Your task to perform on an android device: turn off location history Image 0: 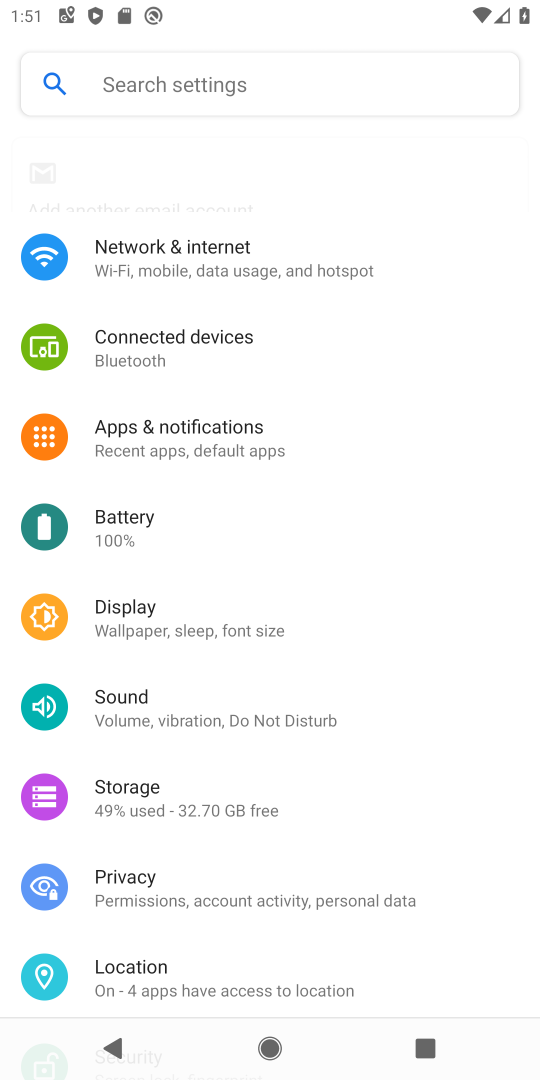
Step 0: press home button
Your task to perform on an android device: turn off location history Image 1: 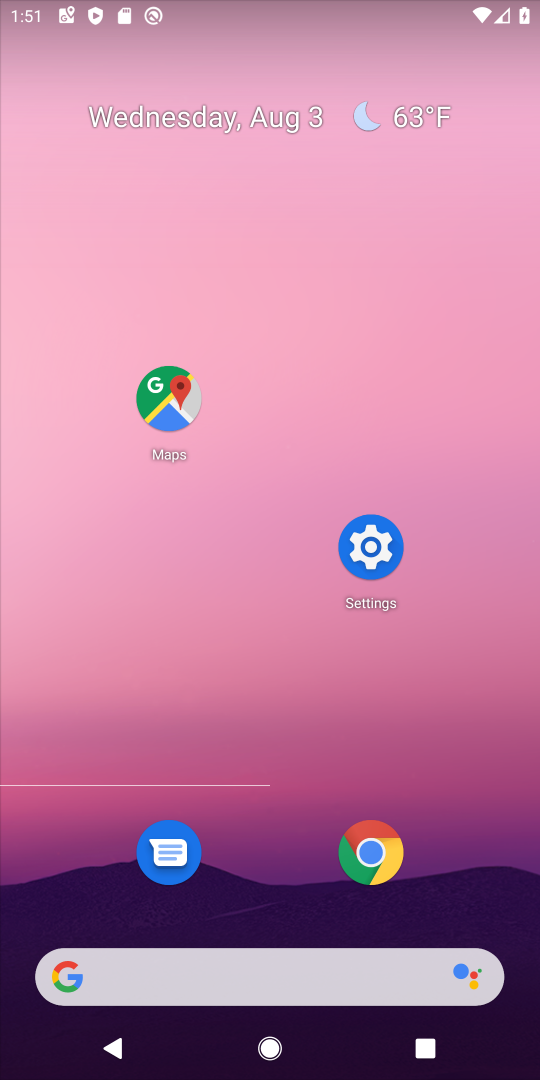
Step 1: click (165, 388)
Your task to perform on an android device: turn off location history Image 2: 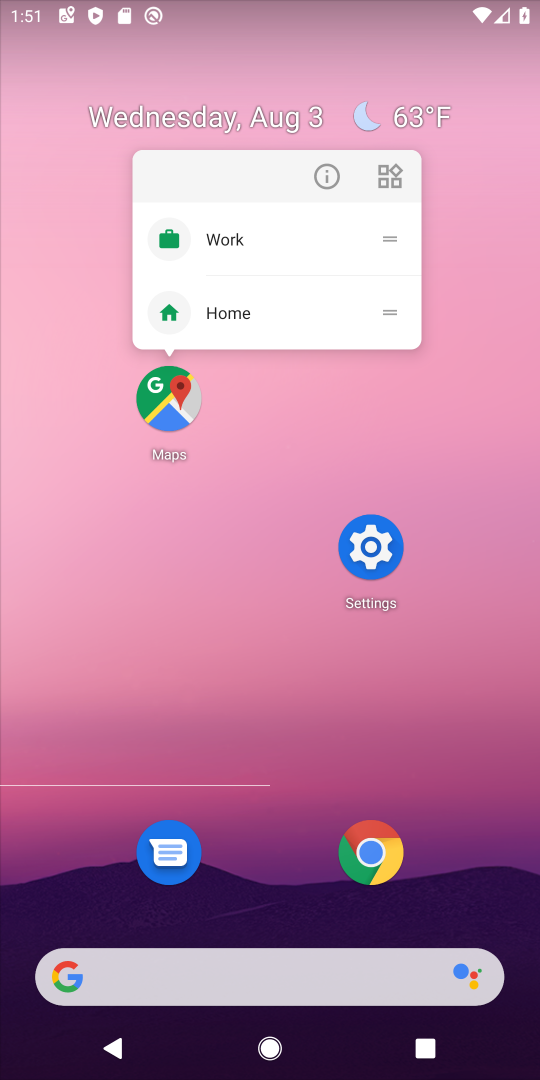
Step 2: click (165, 388)
Your task to perform on an android device: turn off location history Image 3: 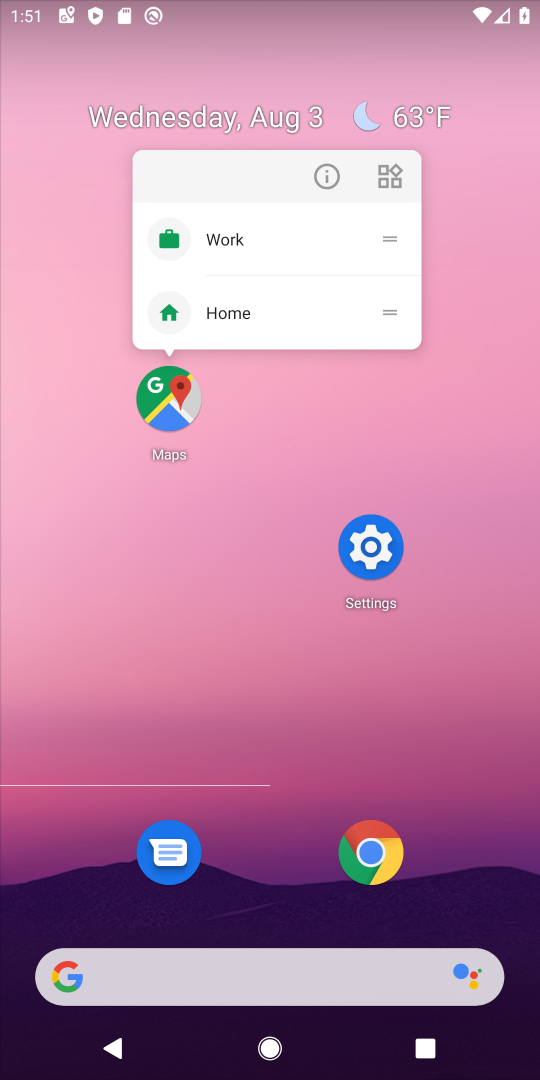
Step 3: click (165, 388)
Your task to perform on an android device: turn off location history Image 4: 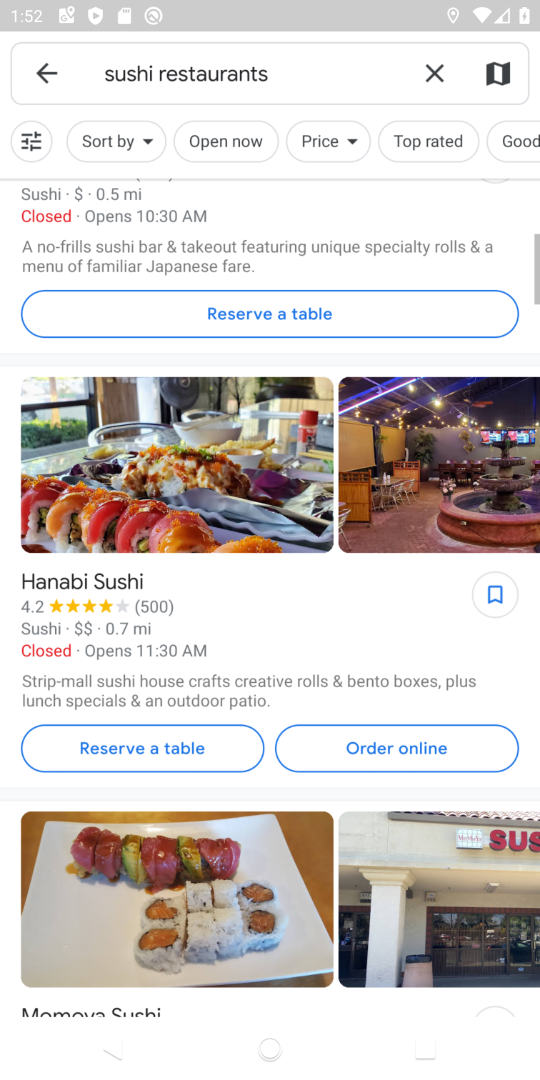
Step 4: click (165, 388)
Your task to perform on an android device: turn off location history Image 5: 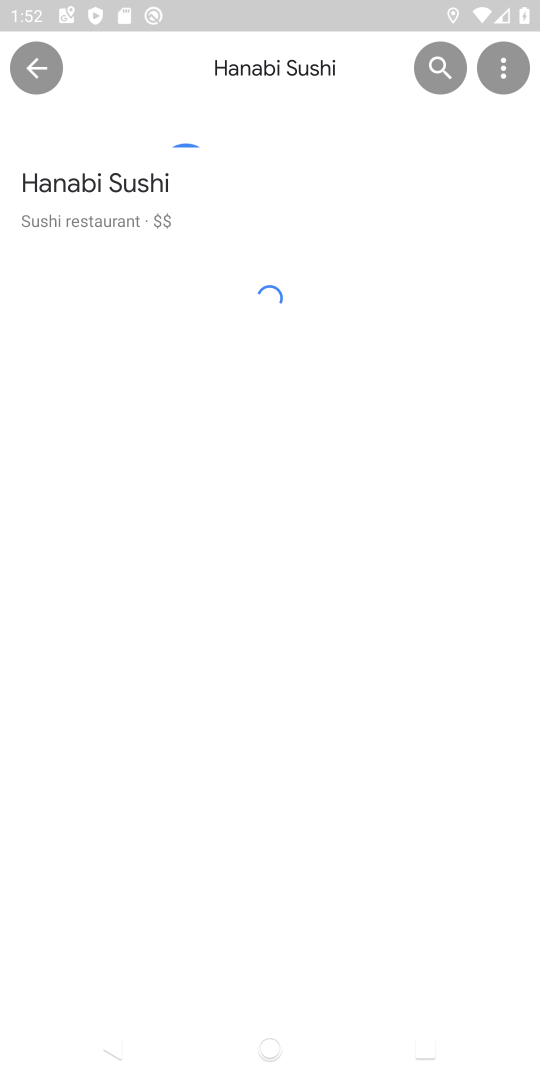
Step 5: click (36, 70)
Your task to perform on an android device: turn off location history Image 6: 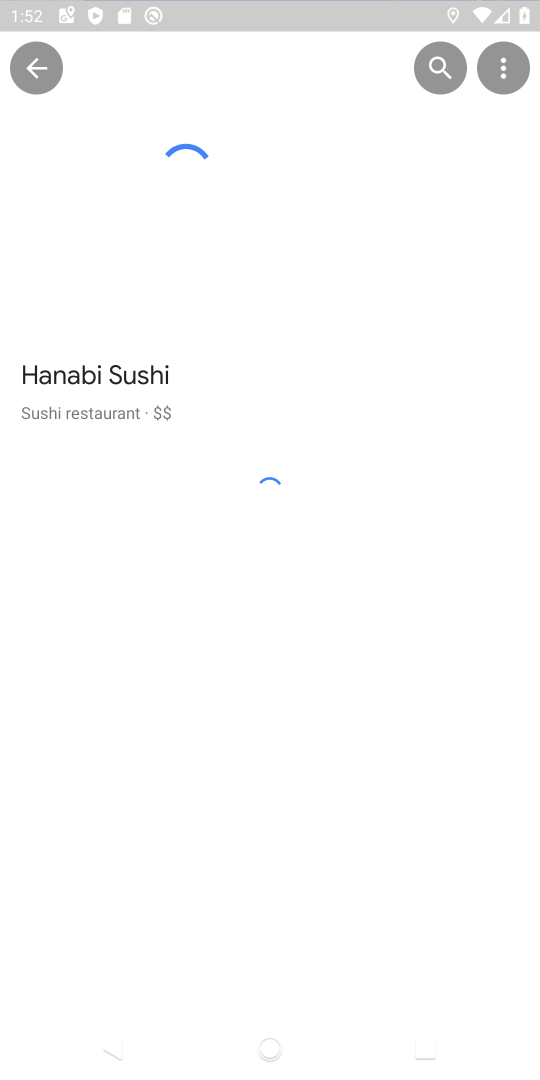
Step 6: click (33, 72)
Your task to perform on an android device: turn off location history Image 7: 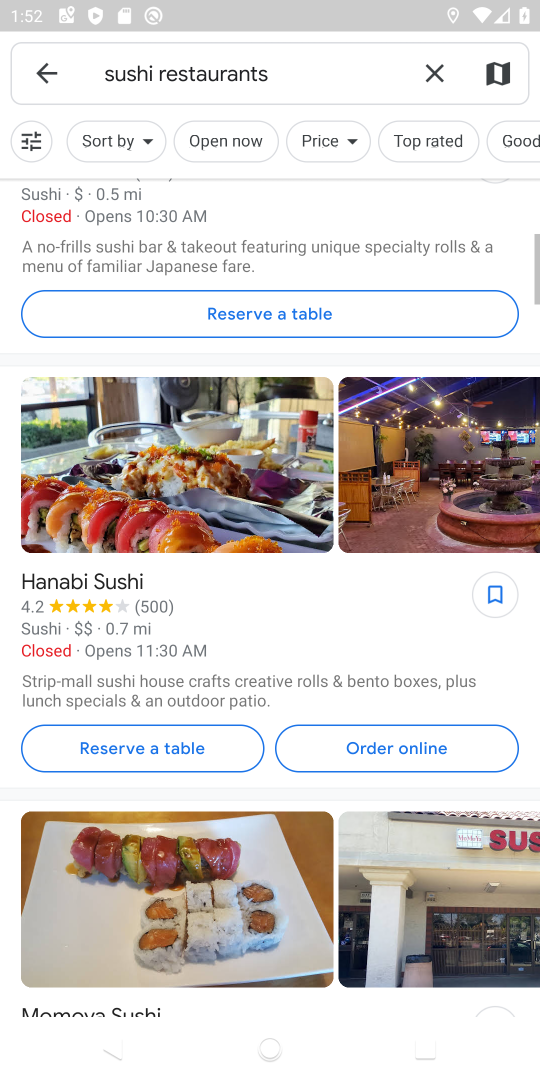
Step 7: click (48, 66)
Your task to perform on an android device: turn off location history Image 8: 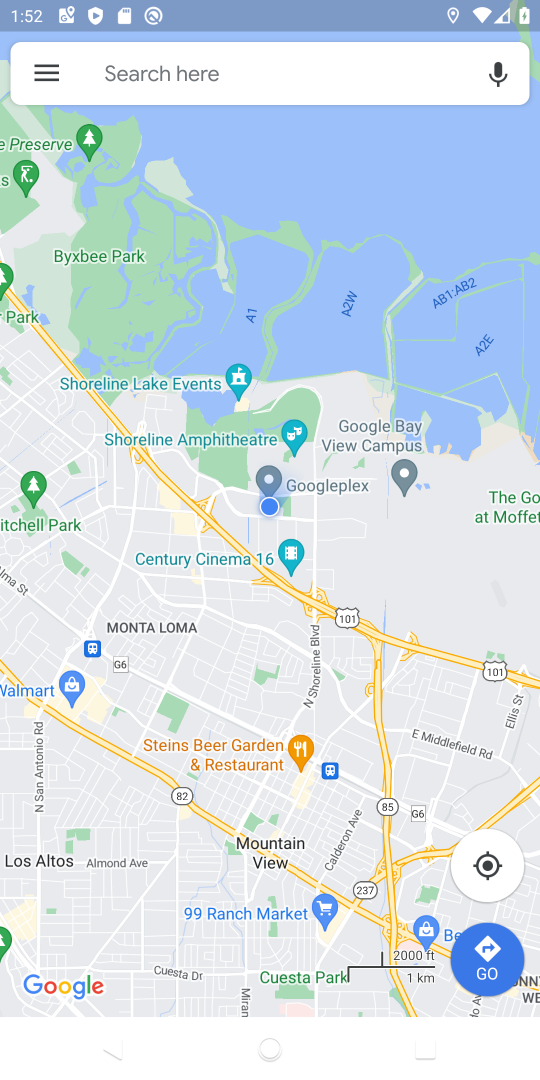
Step 8: click (37, 66)
Your task to perform on an android device: turn off location history Image 9: 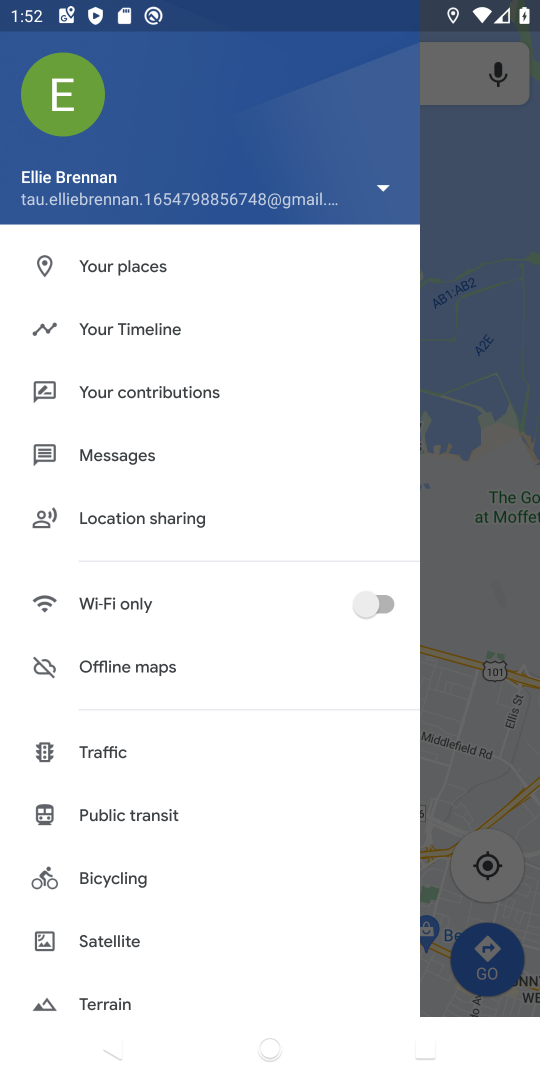
Step 9: click (150, 329)
Your task to perform on an android device: turn off location history Image 10: 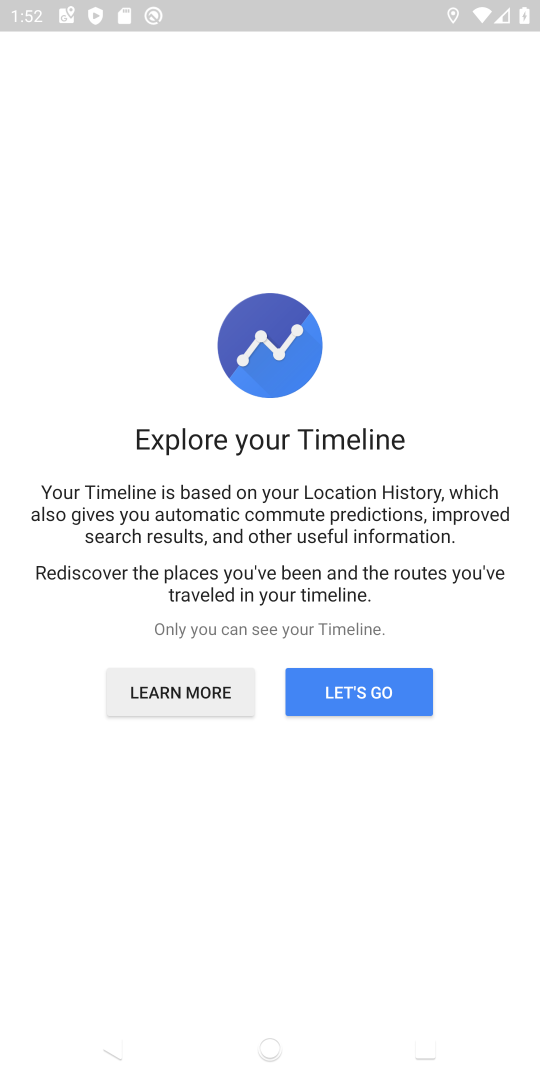
Step 10: click (366, 695)
Your task to perform on an android device: turn off location history Image 11: 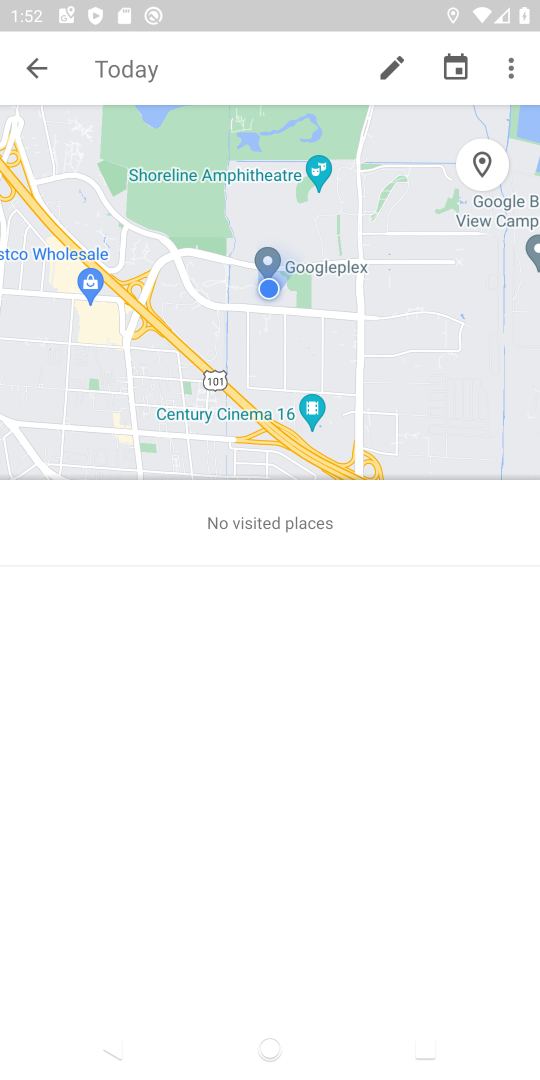
Step 11: click (503, 67)
Your task to perform on an android device: turn off location history Image 12: 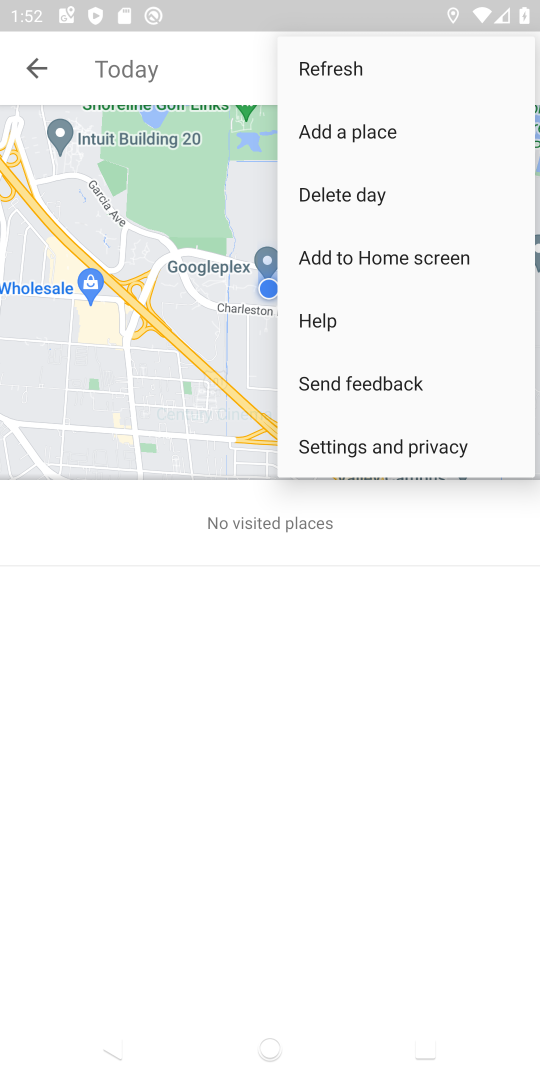
Step 12: click (390, 454)
Your task to perform on an android device: turn off location history Image 13: 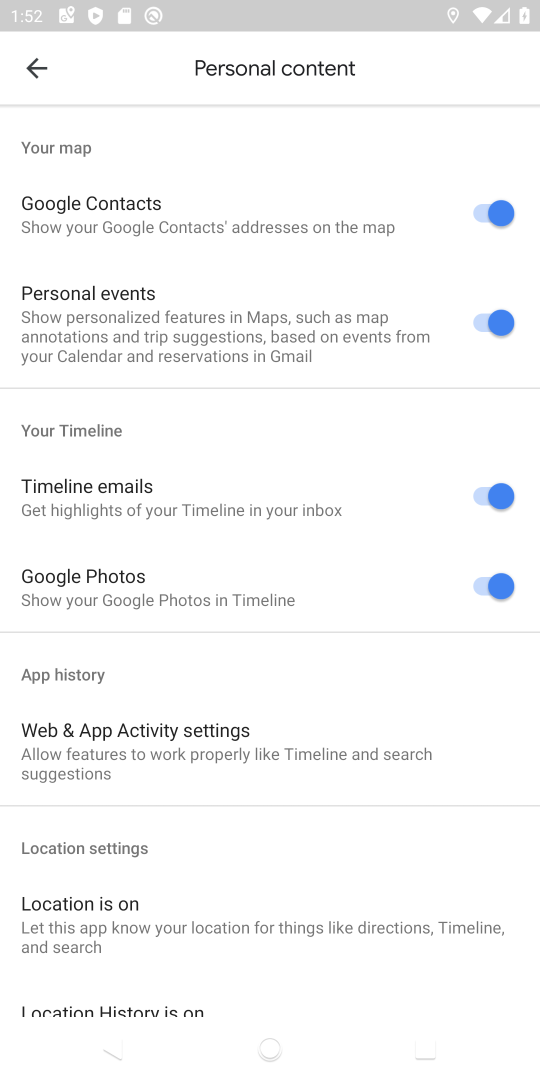
Step 13: drag from (215, 822) to (251, 191)
Your task to perform on an android device: turn off location history Image 14: 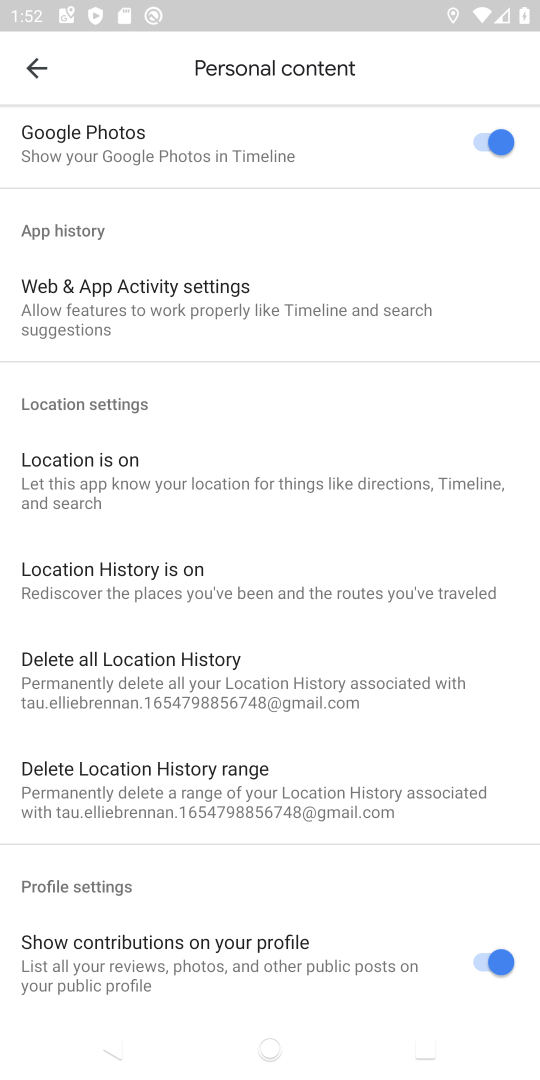
Step 14: click (211, 575)
Your task to perform on an android device: turn off location history Image 15: 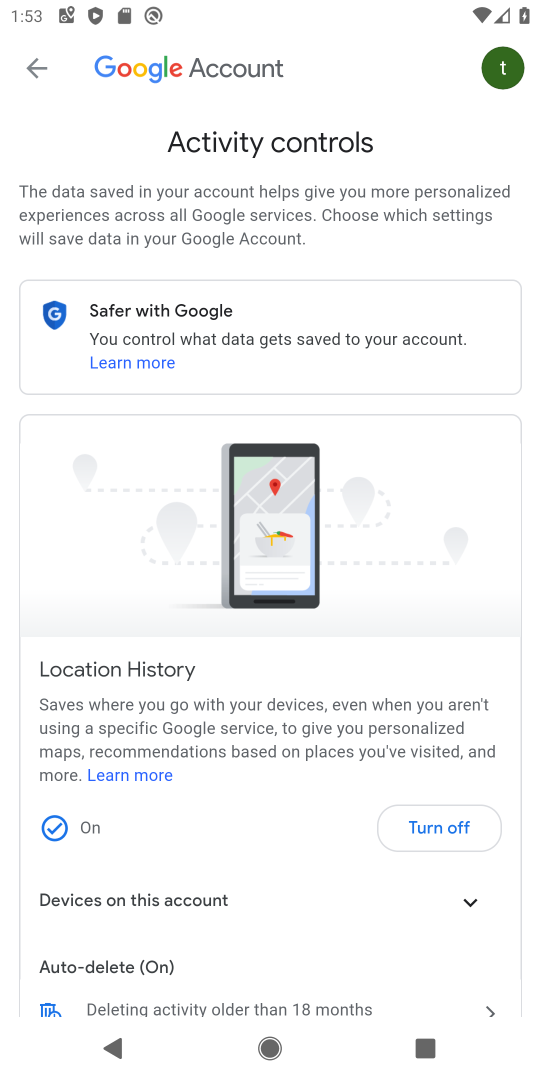
Step 15: click (450, 821)
Your task to perform on an android device: turn off location history Image 16: 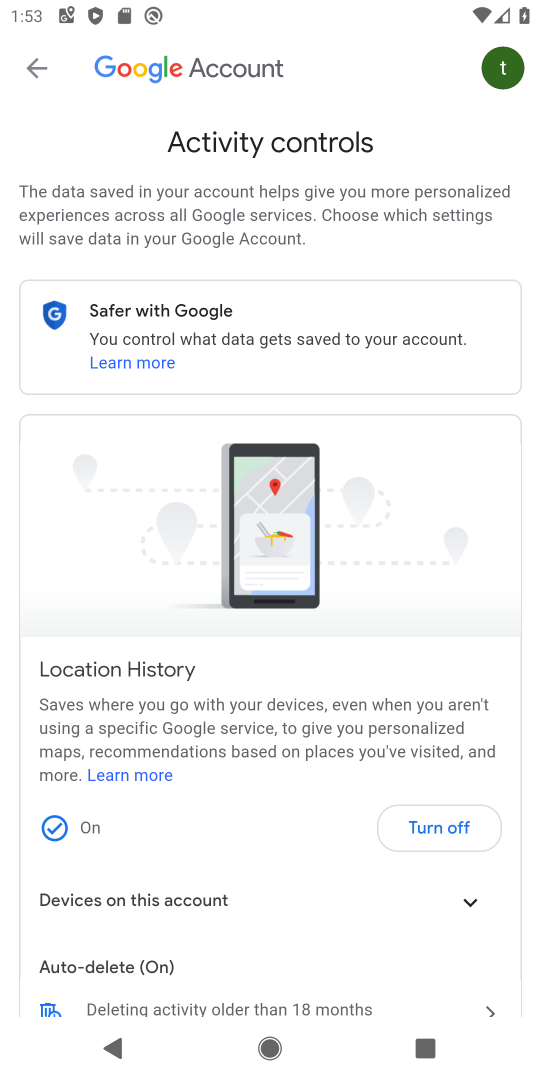
Step 16: click (438, 825)
Your task to perform on an android device: turn off location history Image 17: 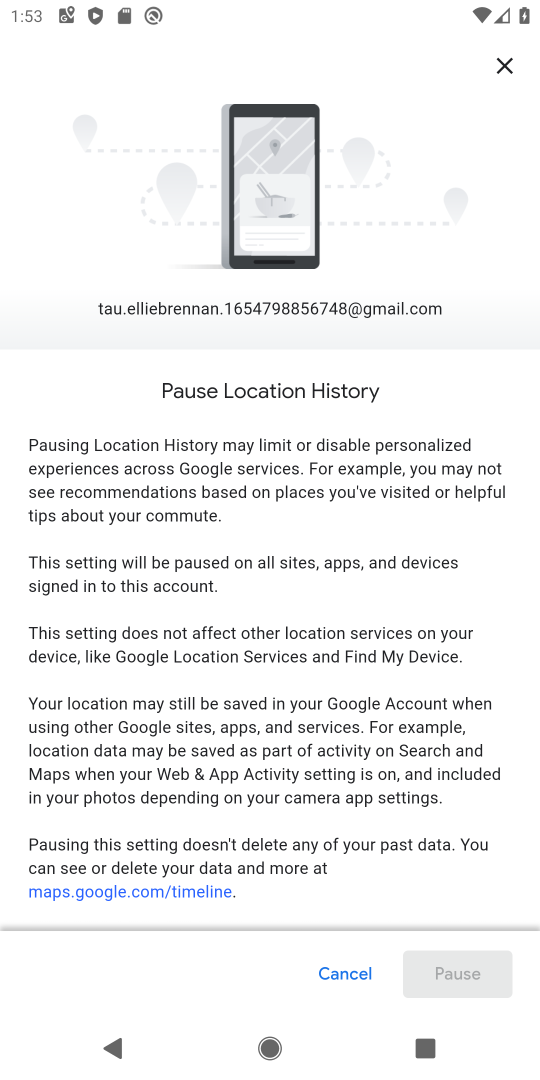
Step 17: drag from (353, 818) to (460, 169)
Your task to perform on an android device: turn off location history Image 18: 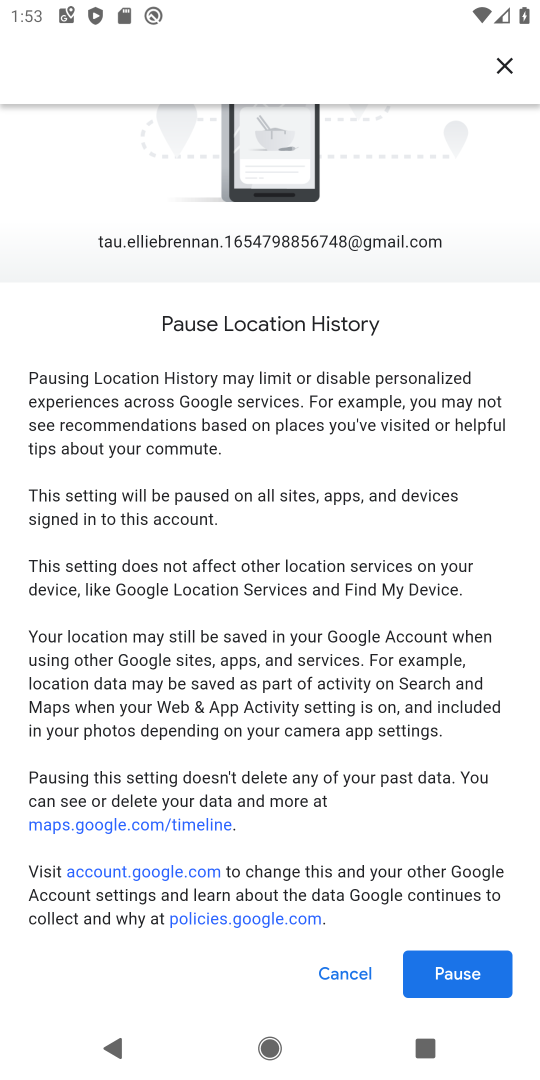
Step 18: drag from (385, 832) to (410, 176)
Your task to perform on an android device: turn off location history Image 19: 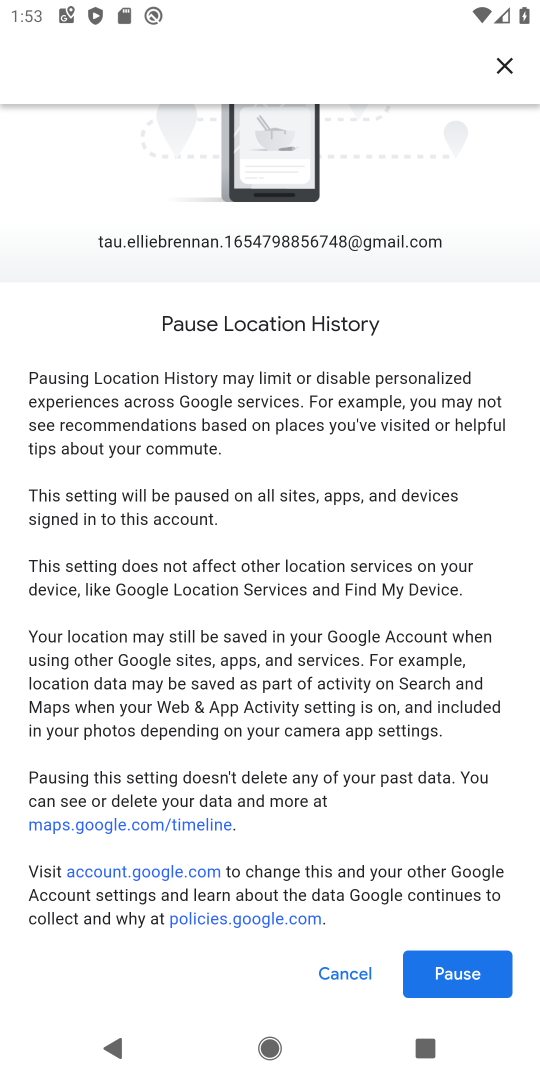
Step 19: click (458, 976)
Your task to perform on an android device: turn off location history Image 20: 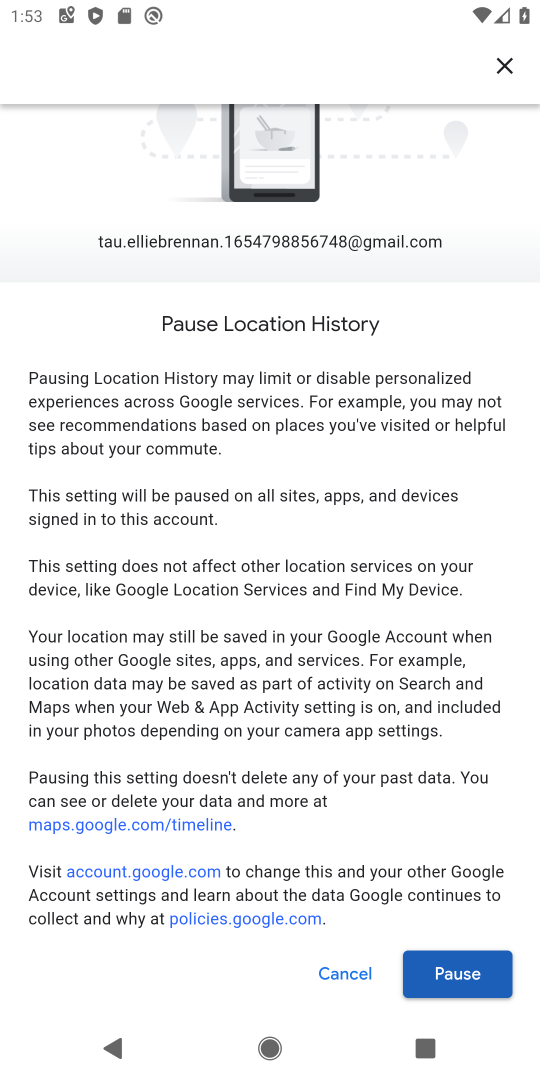
Step 20: click (462, 973)
Your task to perform on an android device: turn off location history Image 21: 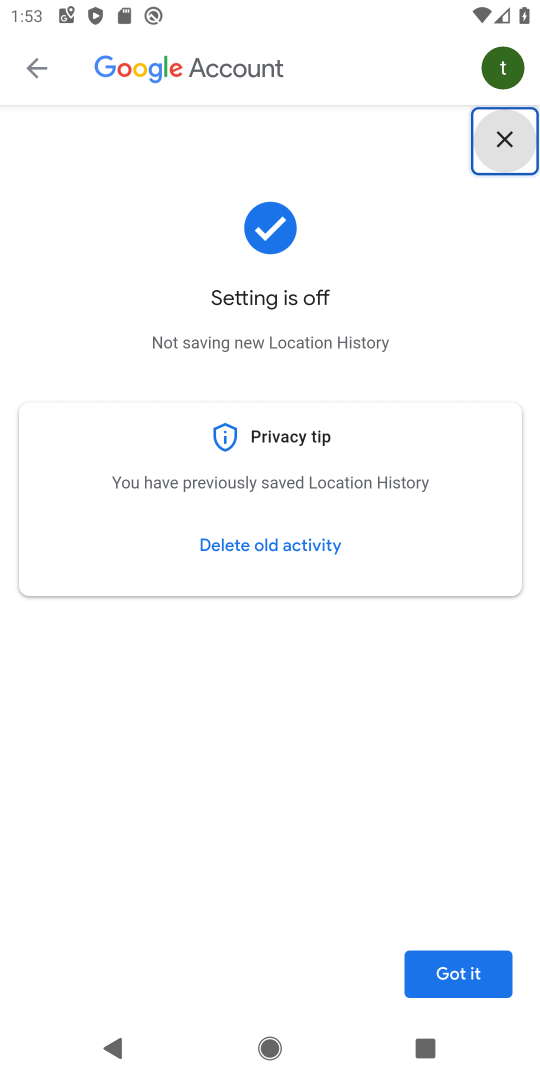
Step 21: click (470, 978)
Your task to perform on an android device: turn off location history Image 22: 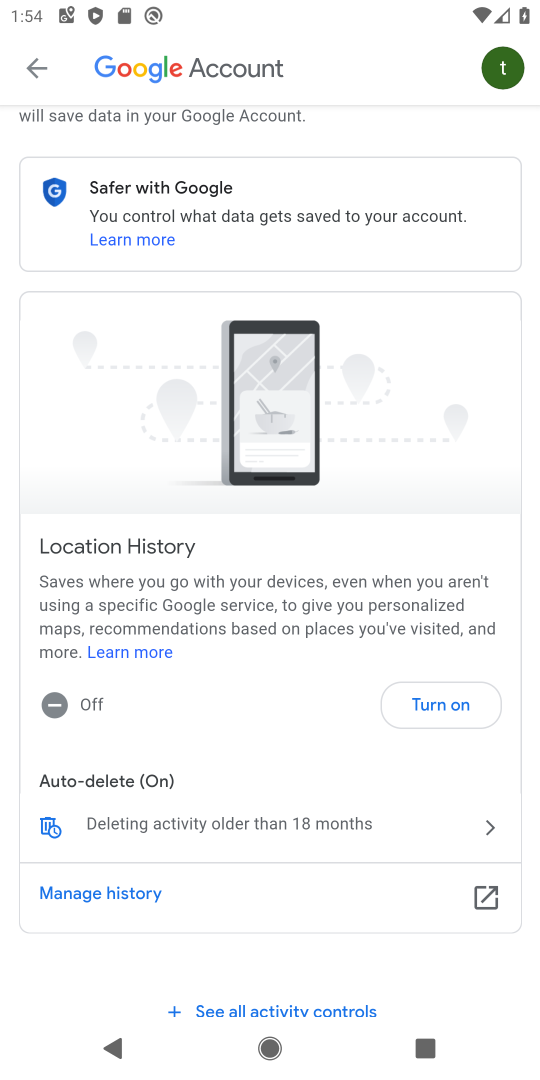
Step 22: task complete